Your task to perform on an android device: change notification settings in the gmail app Image 0: 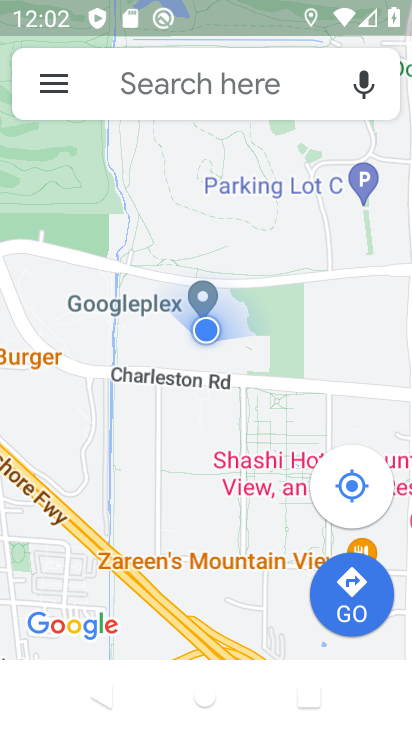
Step 0: press home button
Your task to perform on an android device: change notification settings in the gmail app Image 1: 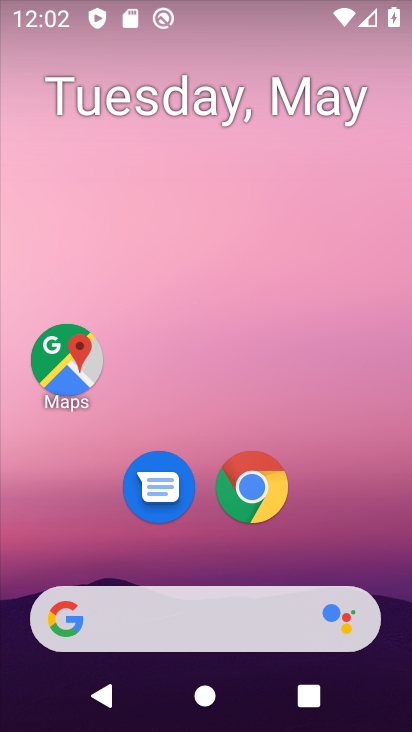
Step 1: drag from (335, 319) to (266, 0)
Your task to perform on an android device: change notification settings in the gmail app Image 2: 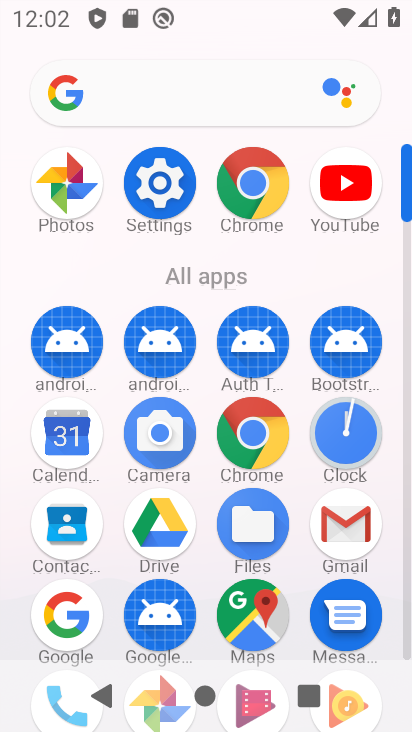
Step 2: click (354, 526)
Your task to perform on an android device: change notification settings in the gmail app Image 3: 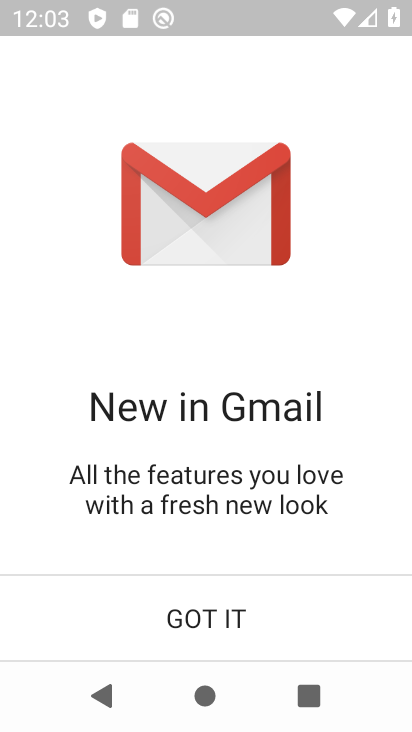
Step 3: click (244, 615)
Your task to perform on an android device: change notification settings in the gmail app Image 4: 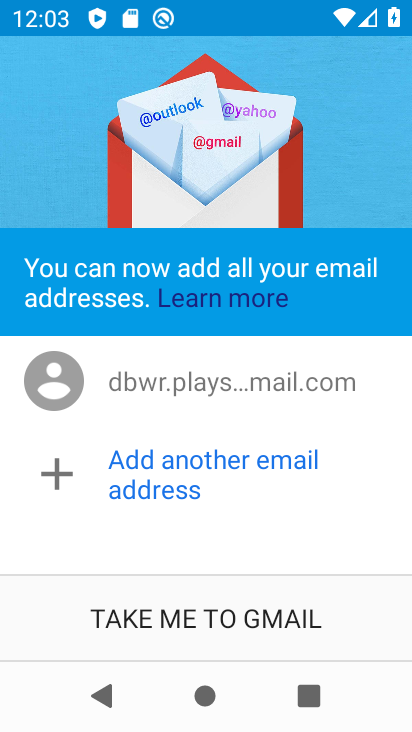
Step 4: click (289, 621)
Your task to perform on an android device: change notification settings in the gmail app Image 5: 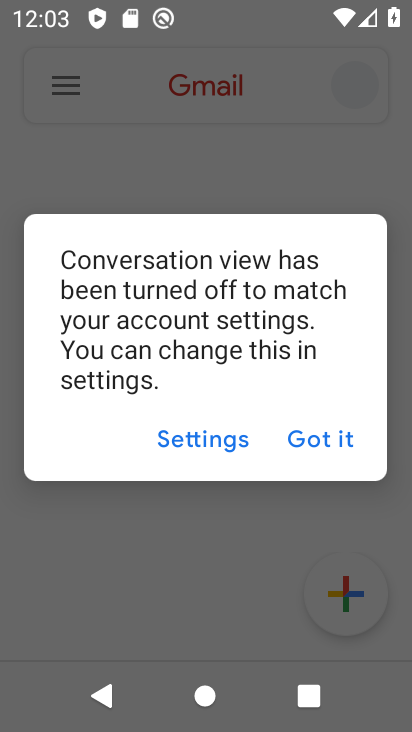
Step 5: click (332, 438)
Your task to perform on an android device: change notification settings in the gmail app Image 6: 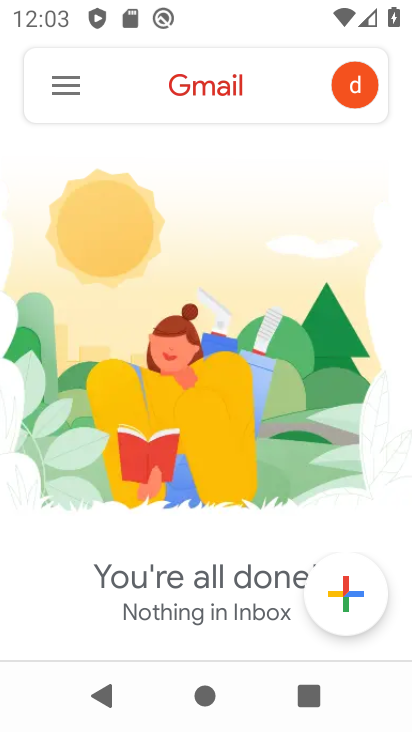
Step 6: click (70, 96)
Your task to perform on an android device: change notification settings in the gmail app Image 7: 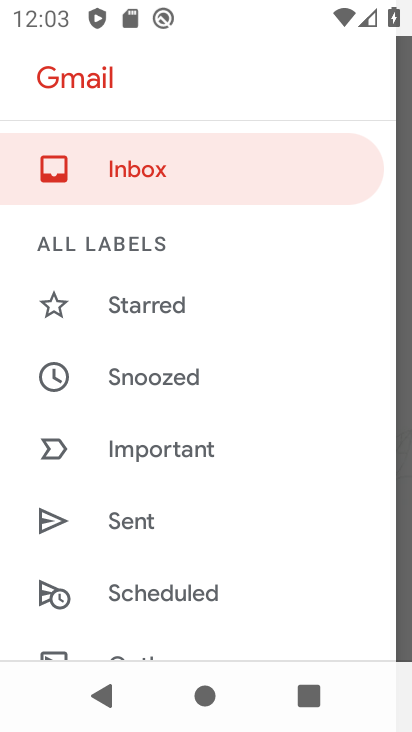
Step 7: drag from (243, 537) to (219, 95)
Your task to perform on an android device: change notification settings in the gmail app Image 8: 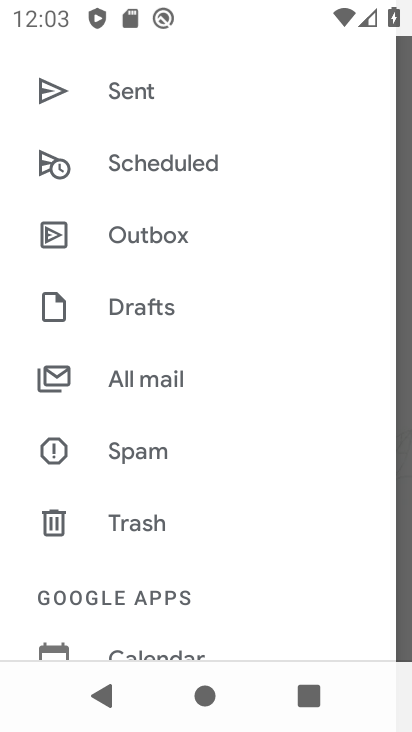
Step 8: click (186, 370)
Your task to perform on an android device: change notification settings in the gmail app Image 9: 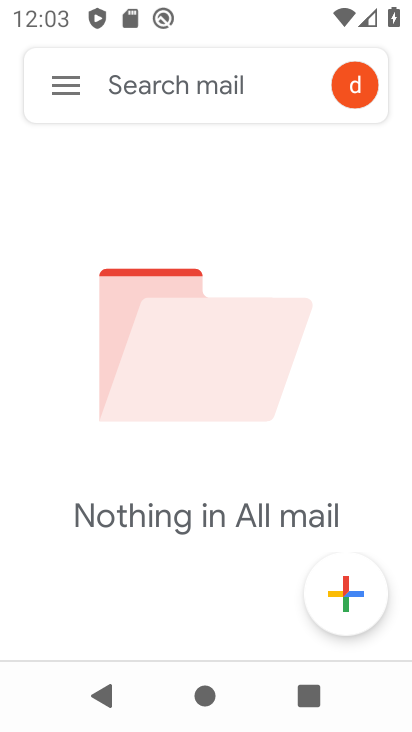
Step 9: click (75, 95)
Your task to perform on an android device: change notification settings in the gmail app Image 10: 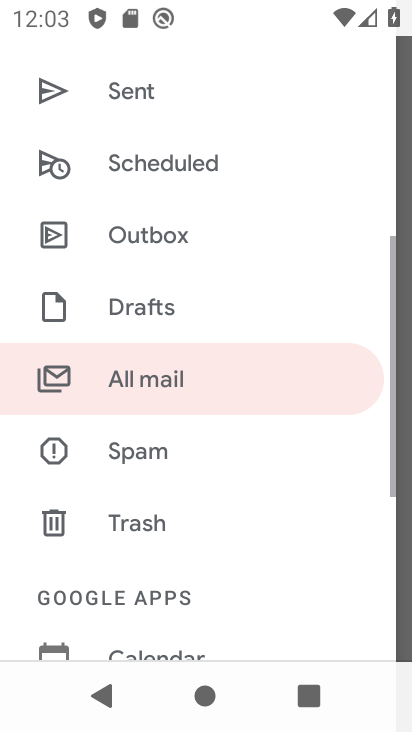
Step 10: drag from (208, 573) to (227, 25)
Your task to perform on an android device: change notification settings in the gmail app Image 11: 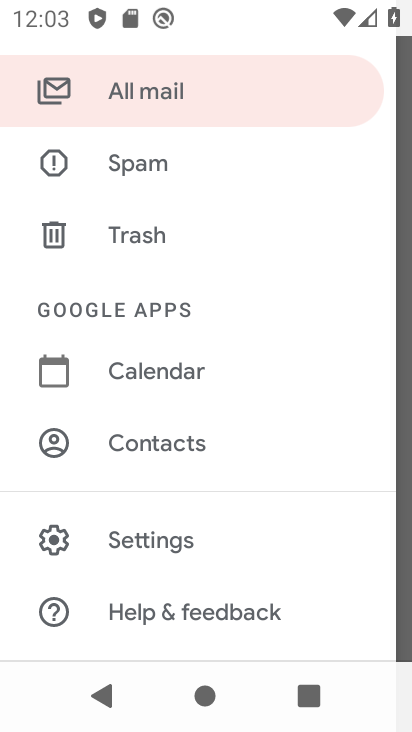
Step 11: click (182, 522)
Your task to perform on an android device: change notification settings in the gmail app Image 12: 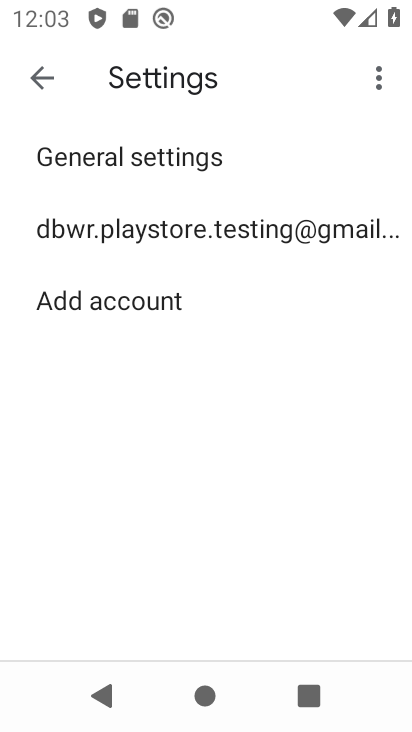
Step 12: click (219, 205)
Your task to perform on an android device: change notification settings in the gmail app Image 13: 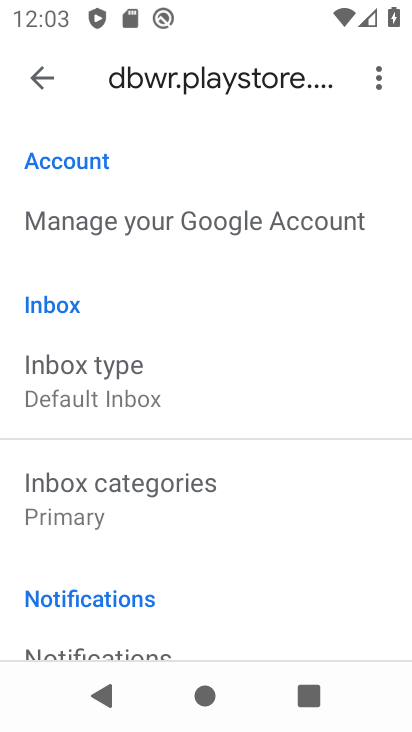
Step 13: click (166, 643)
Your task to perform on an android device: change notification settings in the gmail app Image 14: 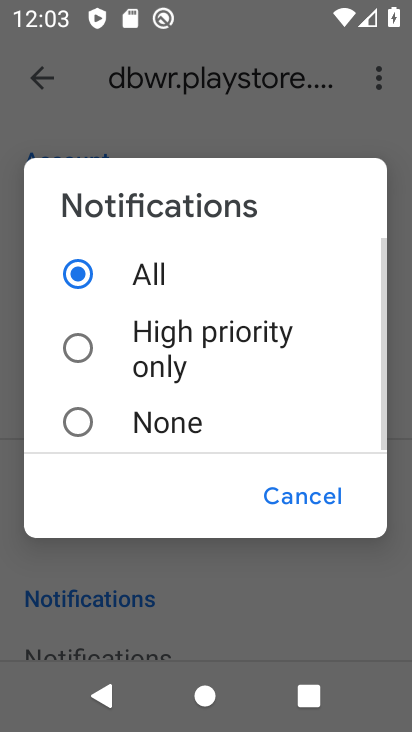
Step 14: click (172, 418)
Your task to perform on an android device: change notification settings in the gmail app Image 15: 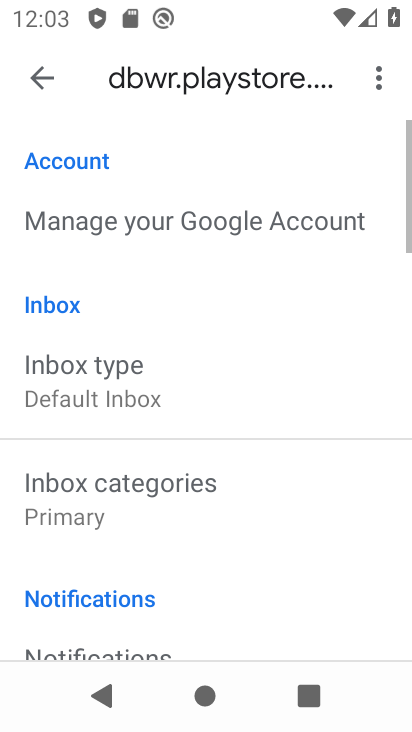
Step 15: task complete